Your task to perform on an android device: Search for apple airpods pro on bestbuy, select the first entry, add it to the cart, then select checkout. Image 0: 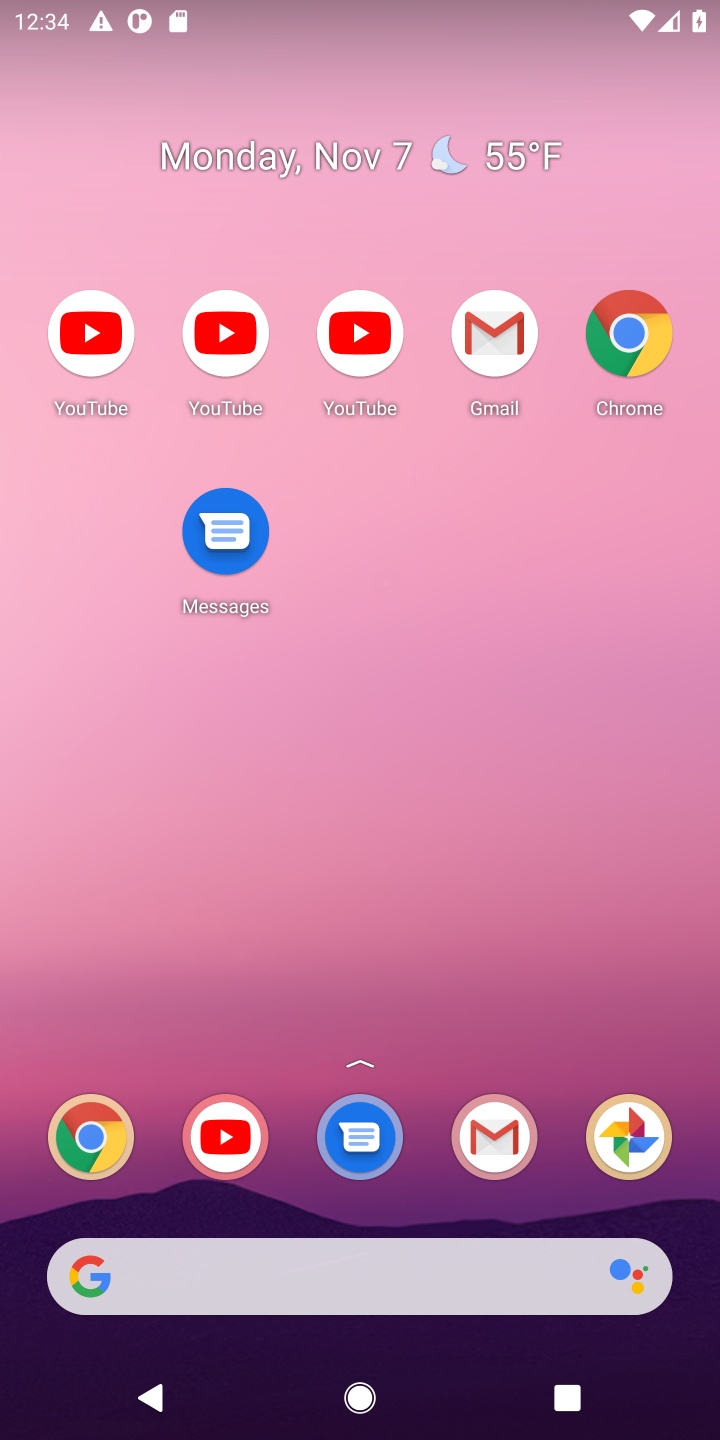
Step 0: drag from (426, 1203) to (434, 125)
Your task to perform on an android device: Search for apple airpods pro on bestbuy, select the first entry, add it to the cart, then select checkout. Image 1: 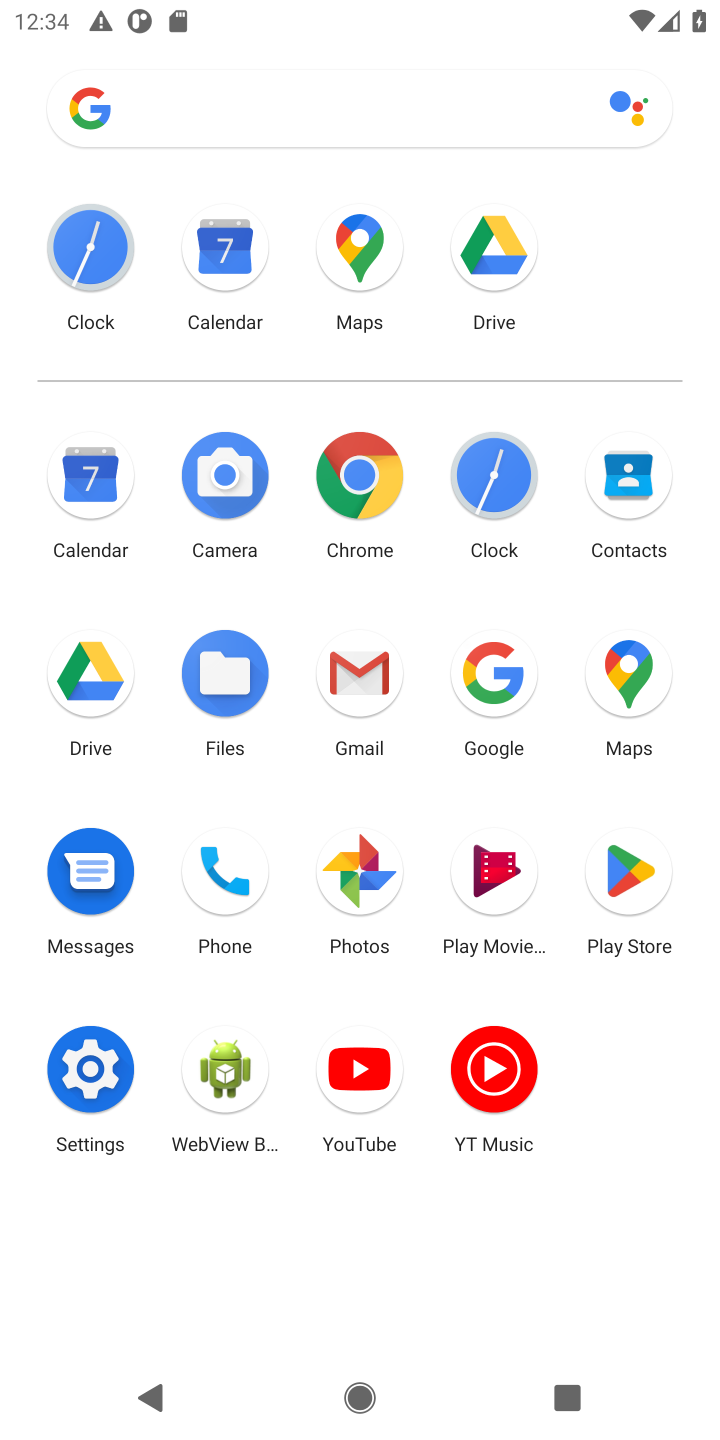
Step 1: click (357, 483)
Your task to perform on an android device: Search for apple airpods pro on bestbuy, select the first entry, add it to the cart, then select checkout. Image 2: 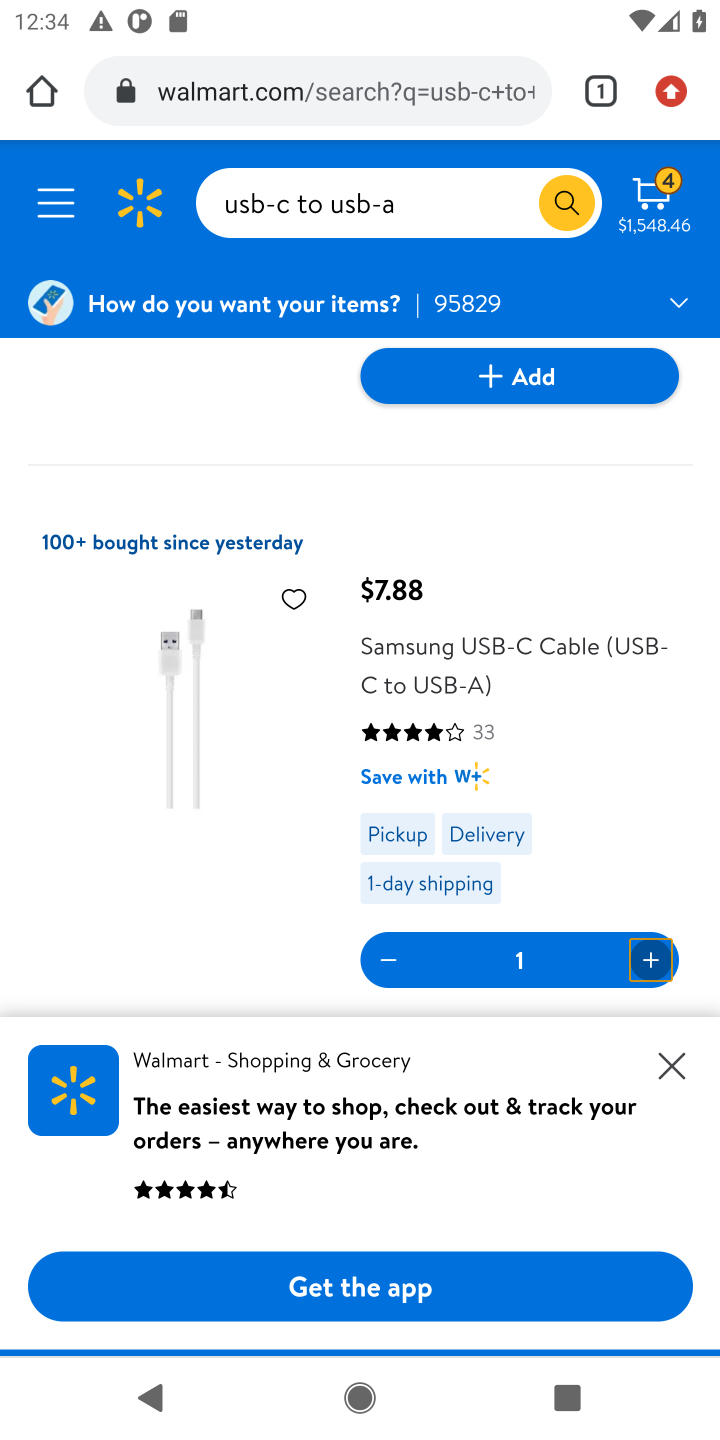
Step 2: click (468, 89)
Your task to perform on an android device: Search for apple airpods pro on bestbuy, select the first entry, add it to the cart, then select checkout. Image 3: 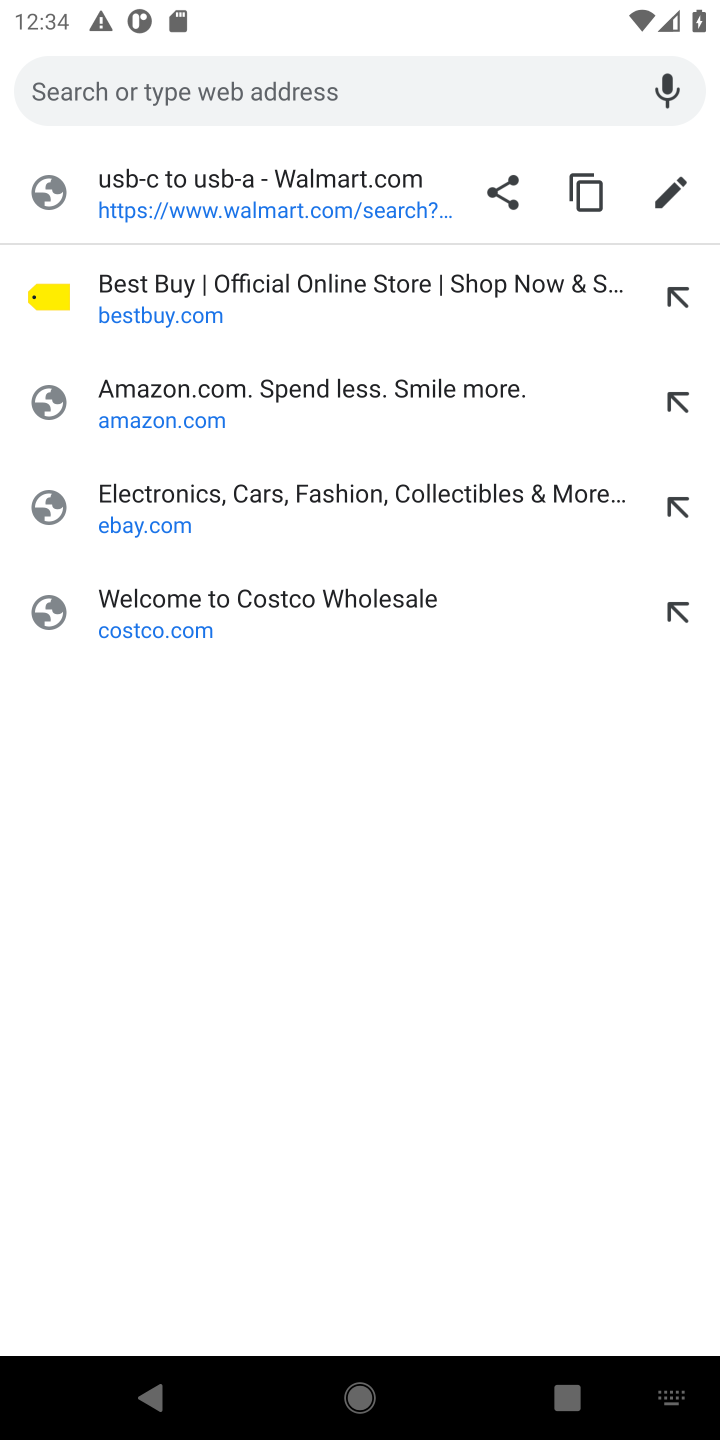
Step 3: type "bestbuy.com"
Your task to perform on an android device: Search for apple airpods pro on bestbuy, select the first entry, add it to the cart, then select checkout. Image 4: 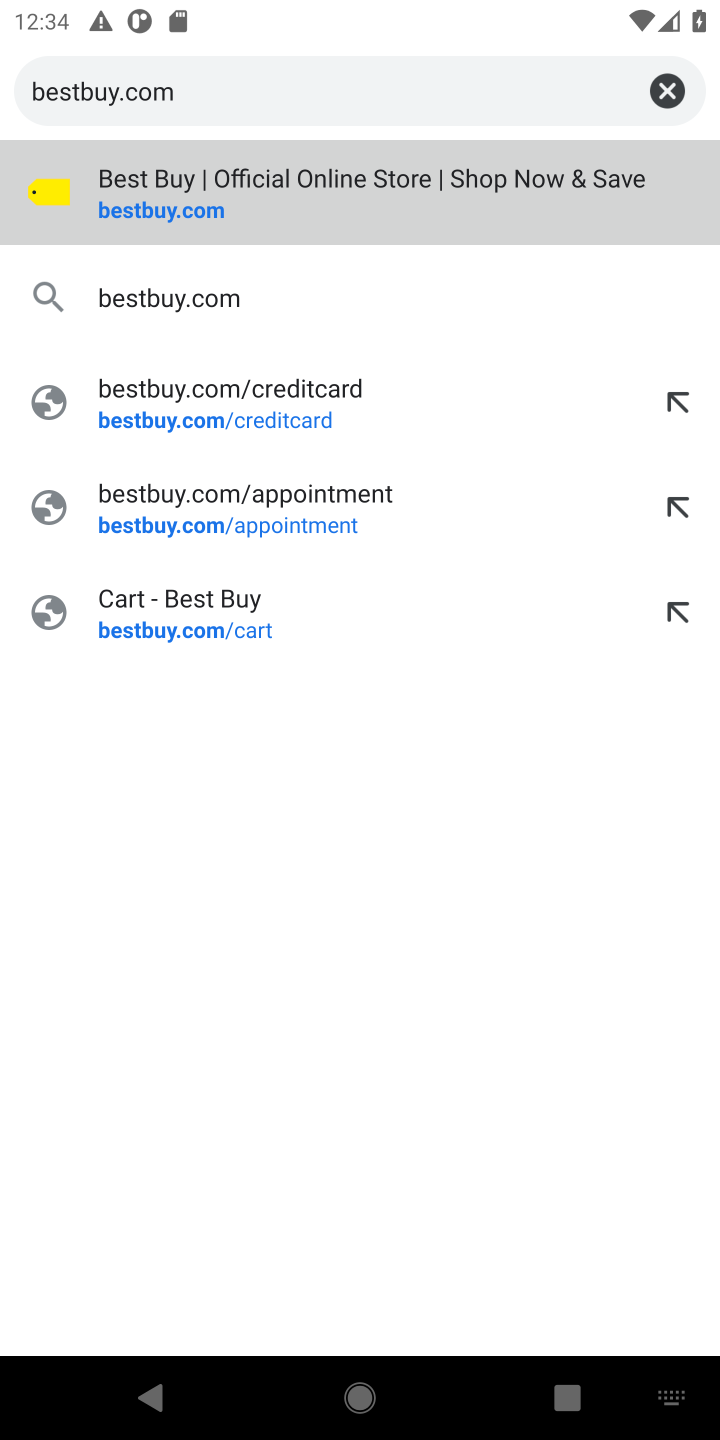
Step 4: press enter
Your task to perform on an android device: Search for apple airpods pro on bestbuy, select the first entry, add it to the cart, then select checkout. Image 5: 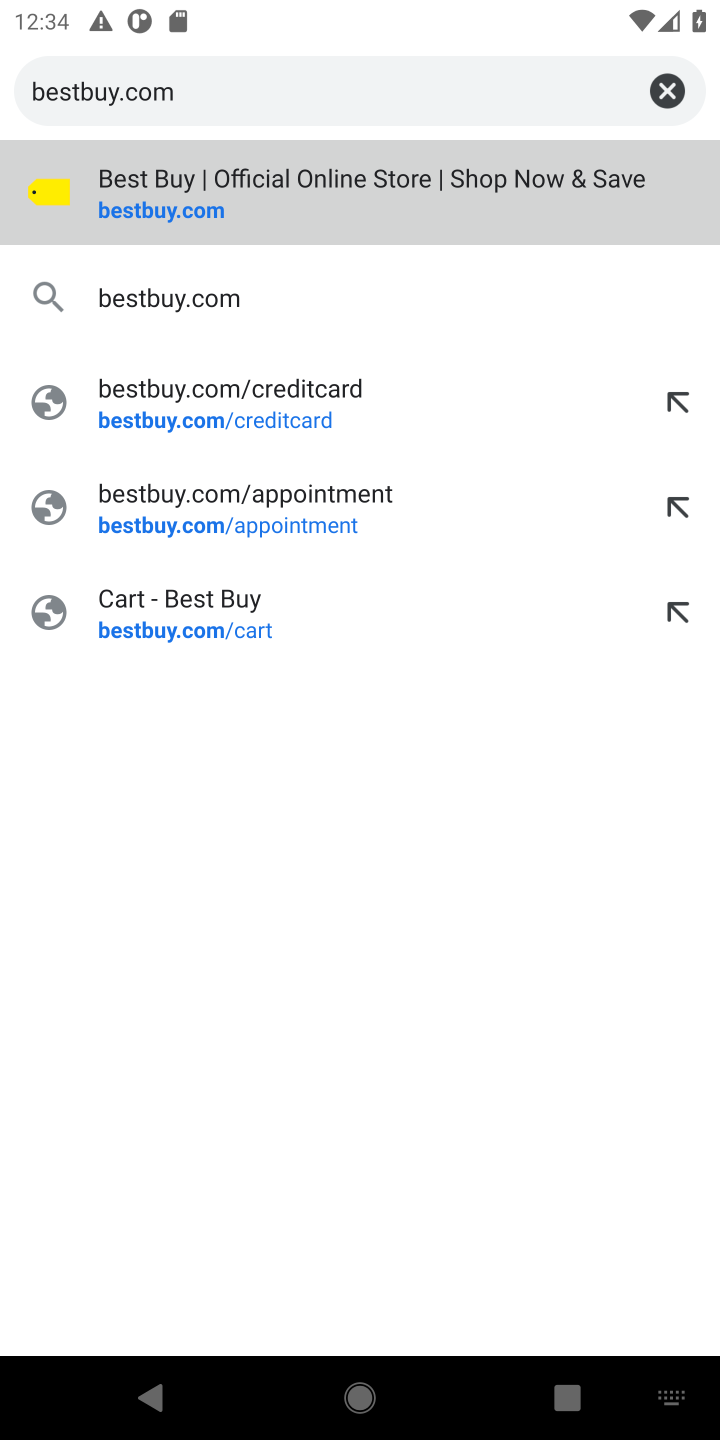
Step 5: type "\"
Your task to perform on an android device: Search for apple airpods pro on bestbuy, select the first entry, add it to the cart, then select checkout. Image 6: 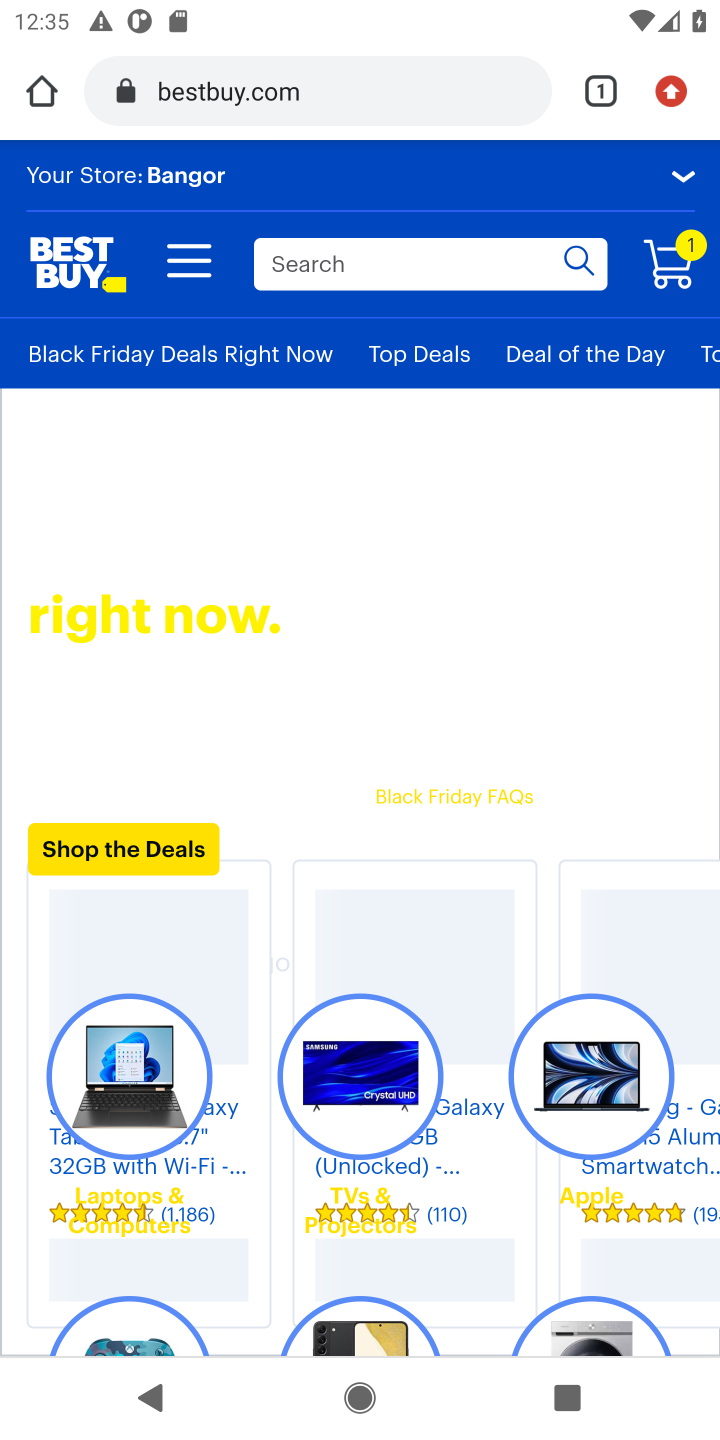
Step 6: click (325, 253)
Your task to perform on an android device: Search for apple airpods pro on bestbuy, select the first entry, add it to the cart, then select checkout. Image 7: 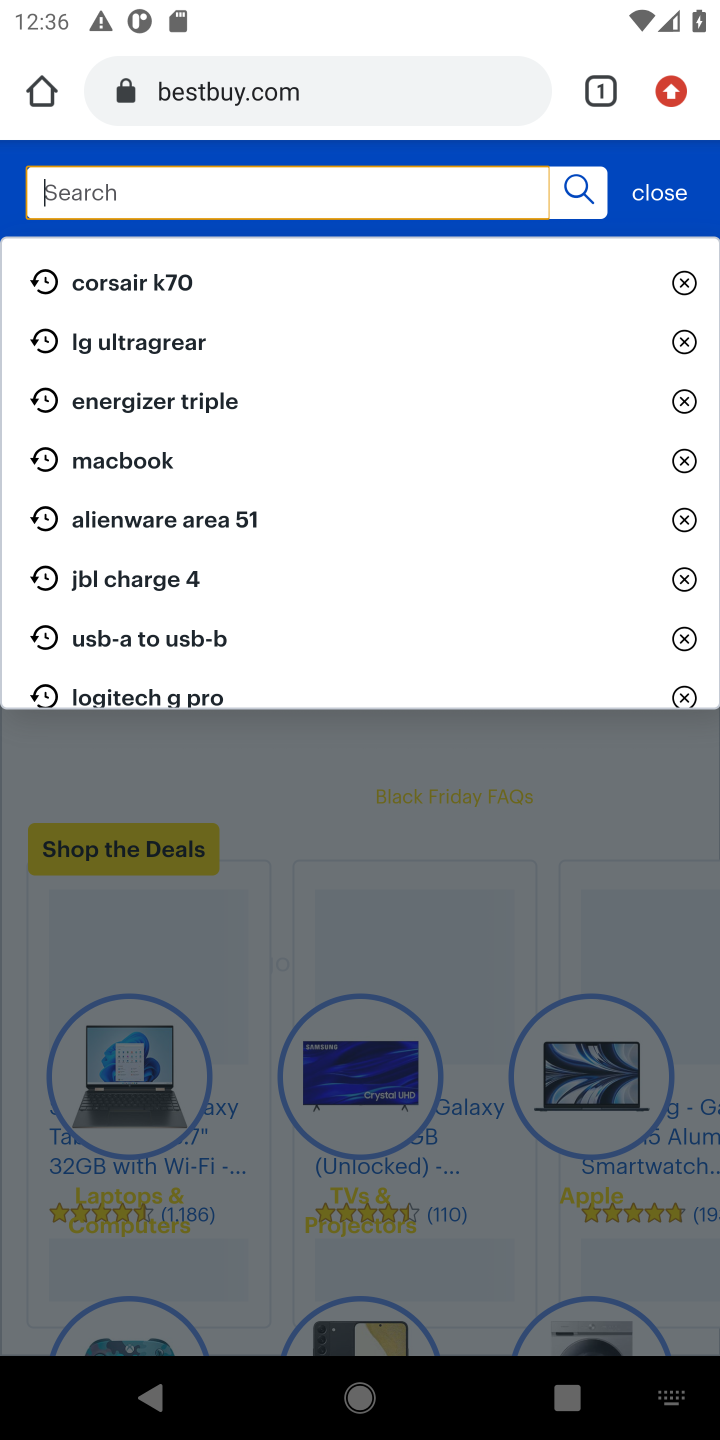
Step 7: type "airpods pro"
Your task to perform on an android device: Search for apple airpods pro on bestbuy, select the first entry, add it to the cart, then select checkout. Image 8: 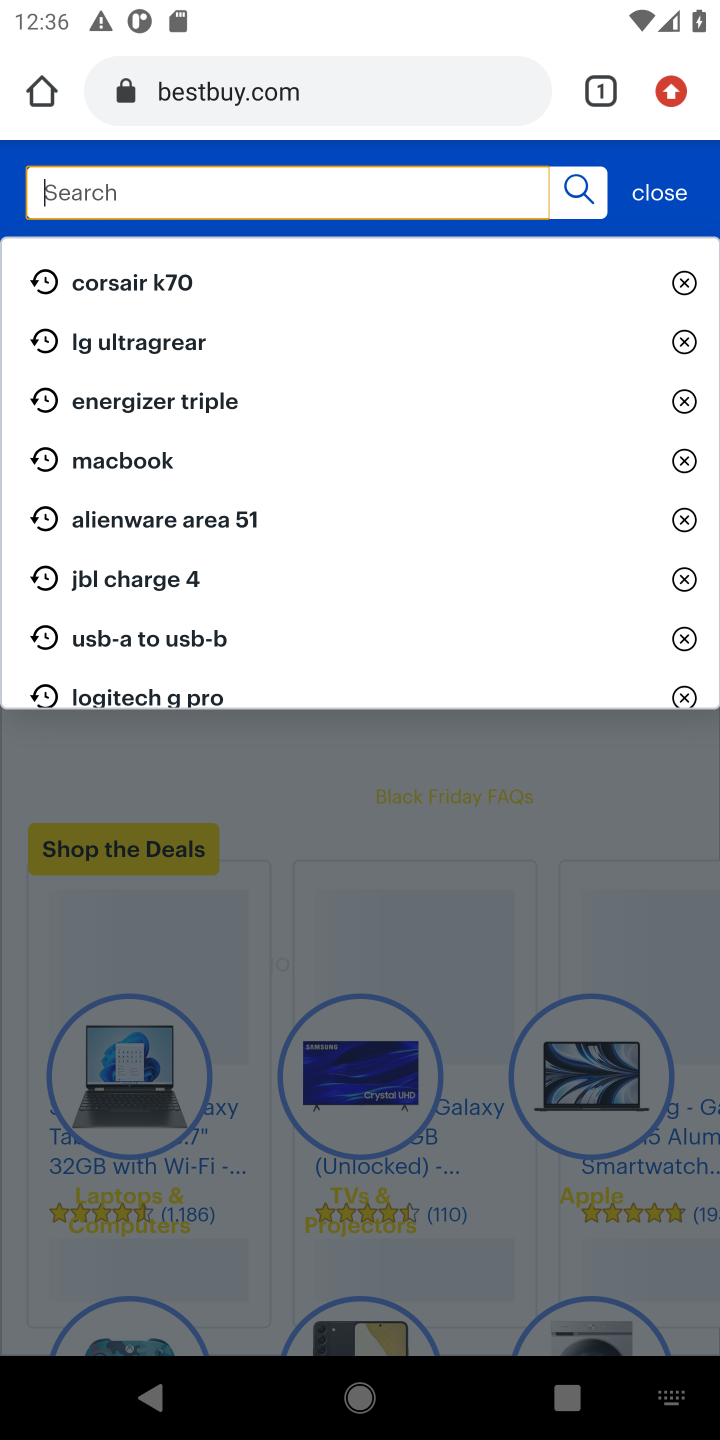
Step 8: press enter
Your task to perform on an android device: Search for apple airpods pro on bestbuy, select the first entry, add it to the cart, then select checkout. Image 9: 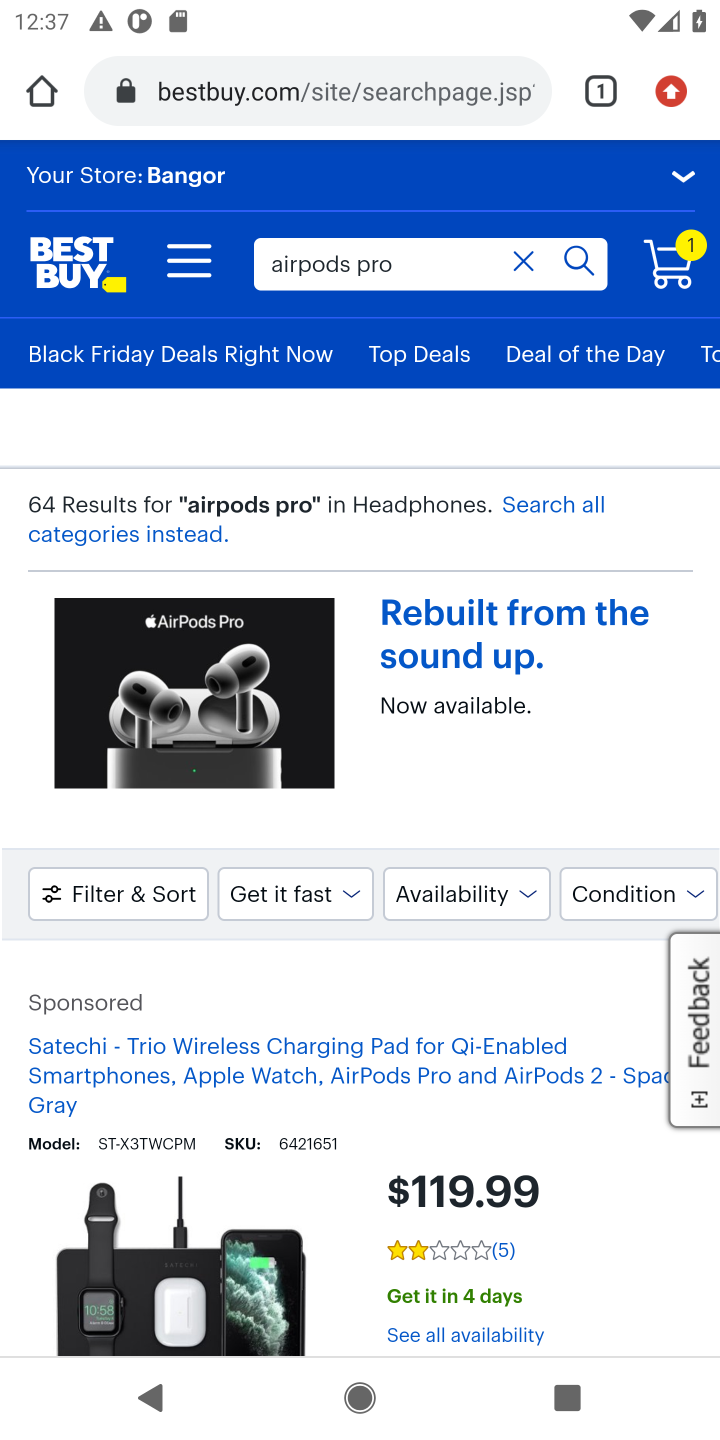
Step 9: drag from (504, 1069) to (469, 110)
Your task to perform on an android device: Search for apple airpods pro on bestbuy, select the first entry, add it to the cart, then select checkout. Image 10: 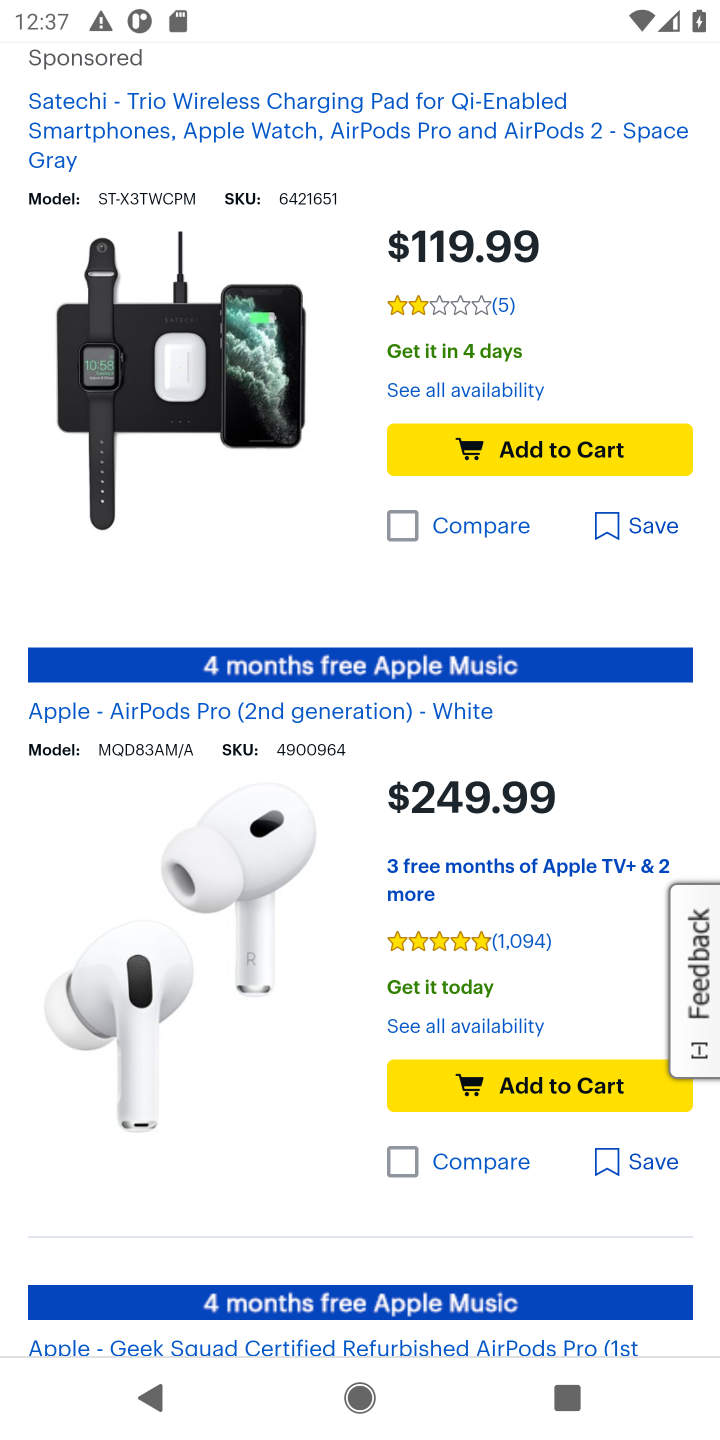
Step 10: drag from (487, 1003) to (426, 682)
Your task to perform on an android device: Search for apple airpods pro on bestbuy, select the first entry, add it to the cart, then select checkout. Image 11: 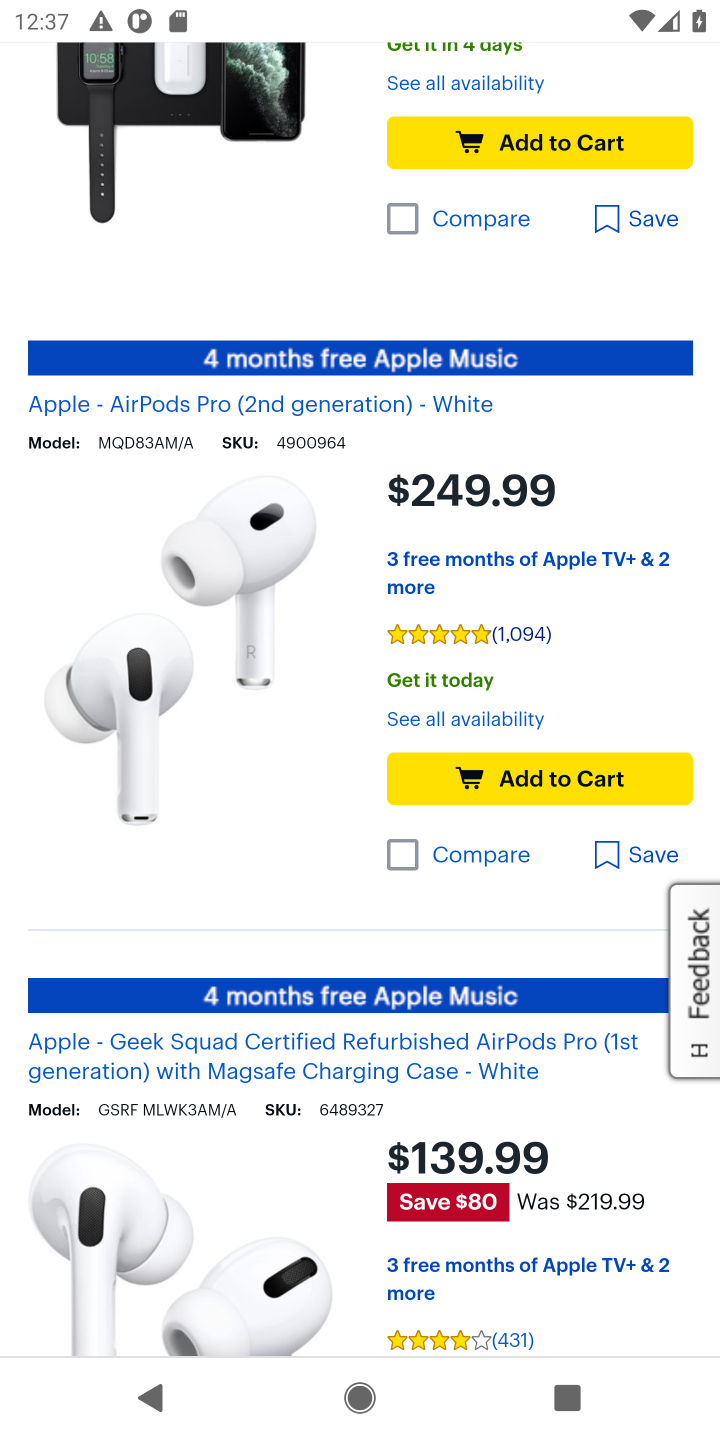
Step 11: click (578, 784)
Your task to perform on an android device: Search for apple airpods pro on bestbuy, select the first entry, add it to the cart, then select checkout. Image 12: 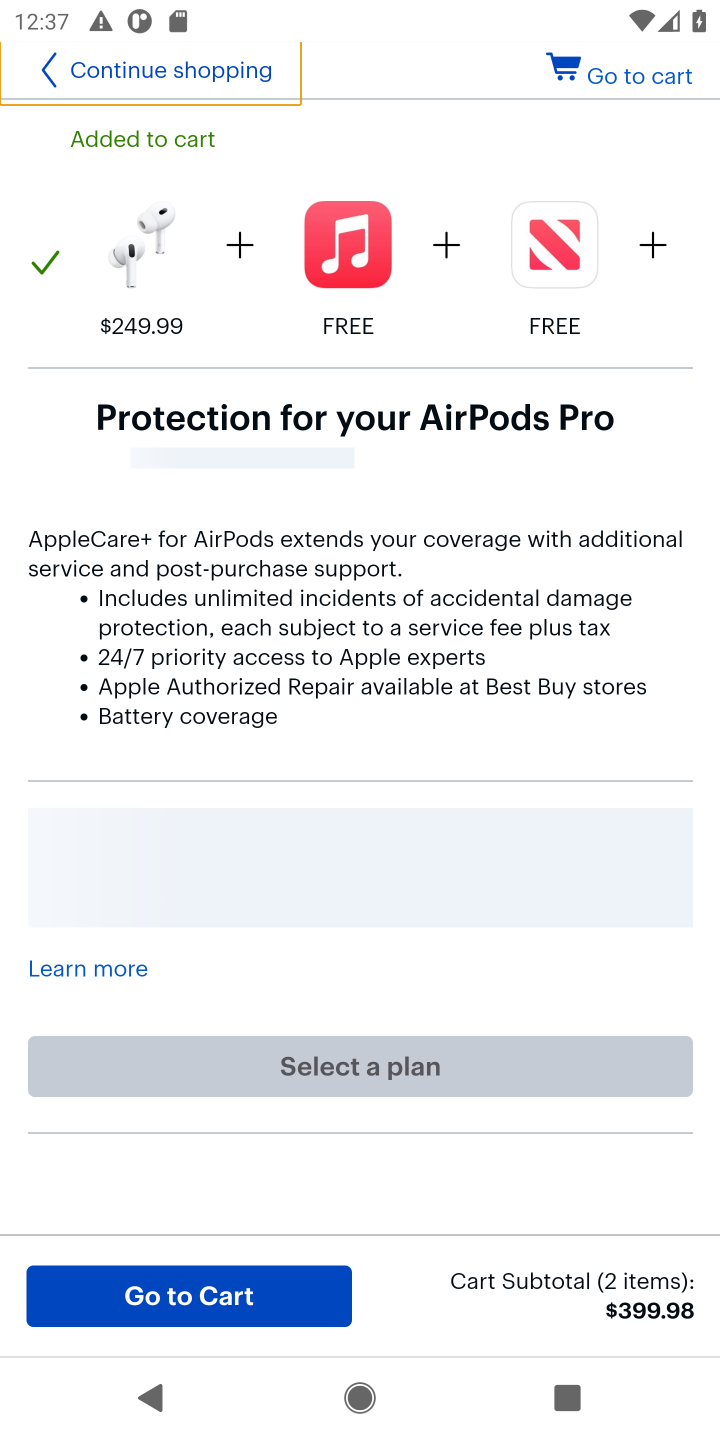
Step 12: click (228, 1299)
Your task to perform on an android device: Search for apple airpods pro on bestbuy, select the first entry, add it to the cart, then select checkout. Image 13: 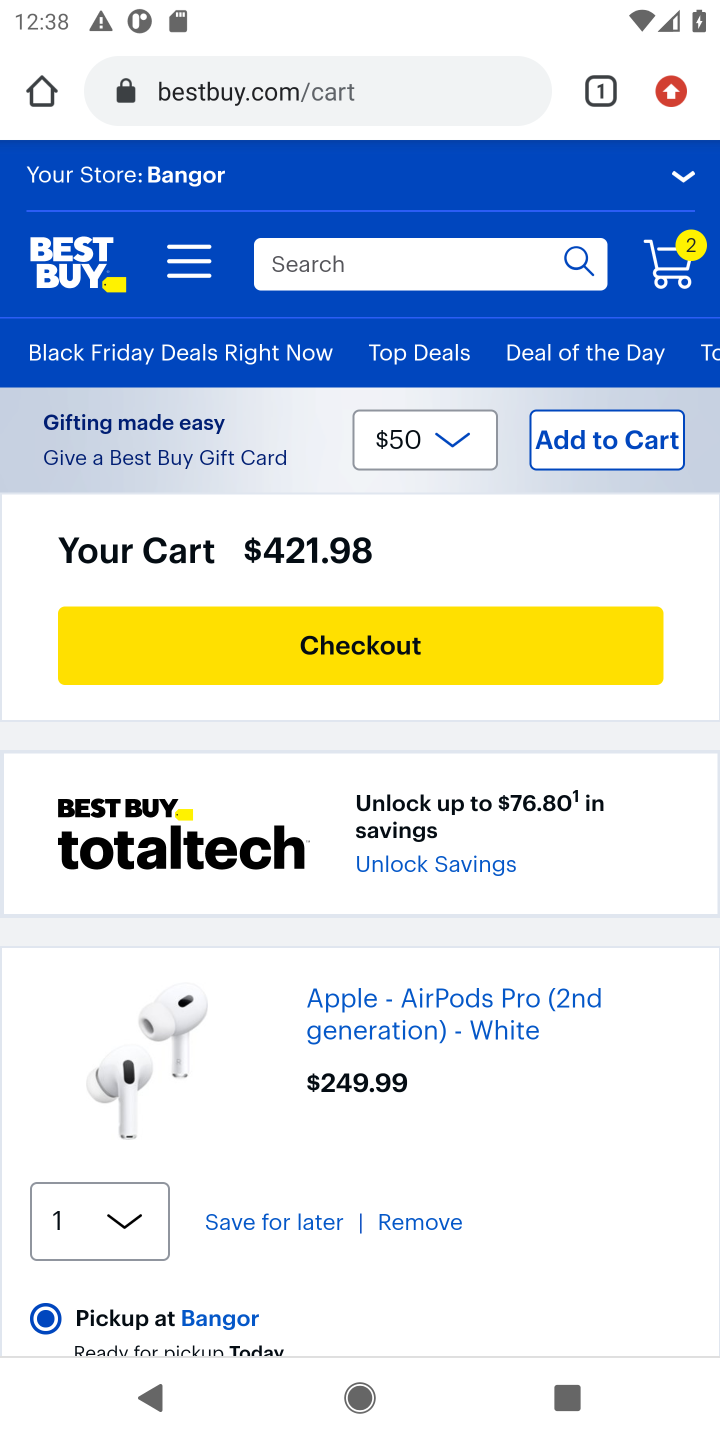
Step 13: click (422, 636)
Your task to perform on an android device: Search for apple airpods pro on bestbuy, select the first entry, add it to the cart, then select checkout. Image 14: 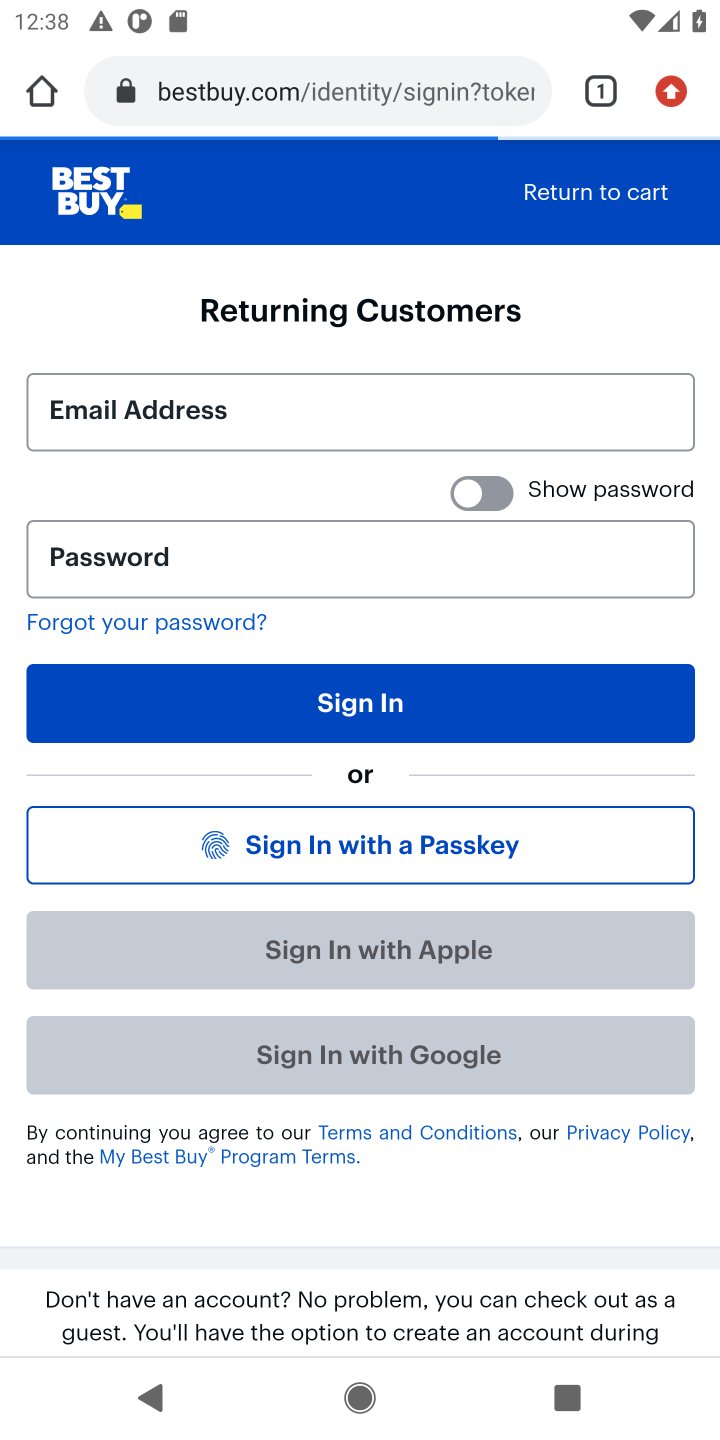
Step 14: task complete